Your task to perform on an android device: Go to Maps Image 0: 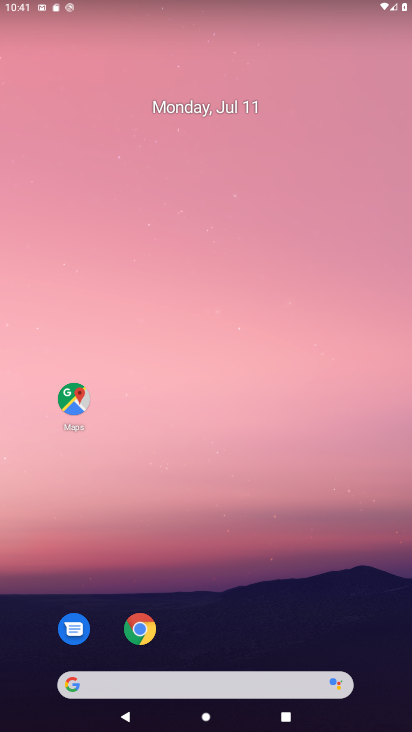
Step 0: click (78, 405)
Your task to perform on an android device: Go to Maps Image 1: 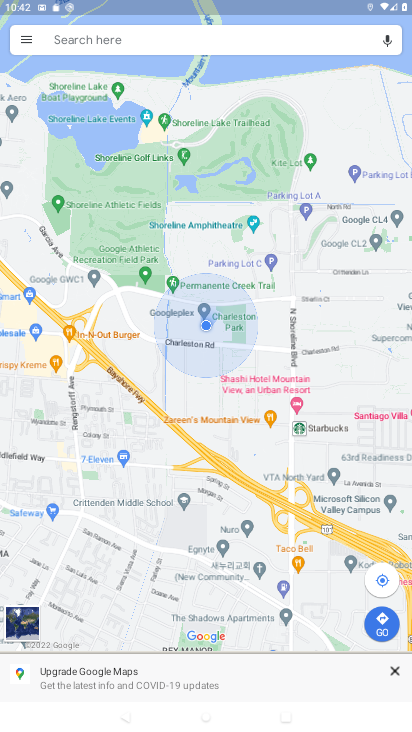
Step 1: task complete